Your task to perform on an android device: Open network settings Image 0: 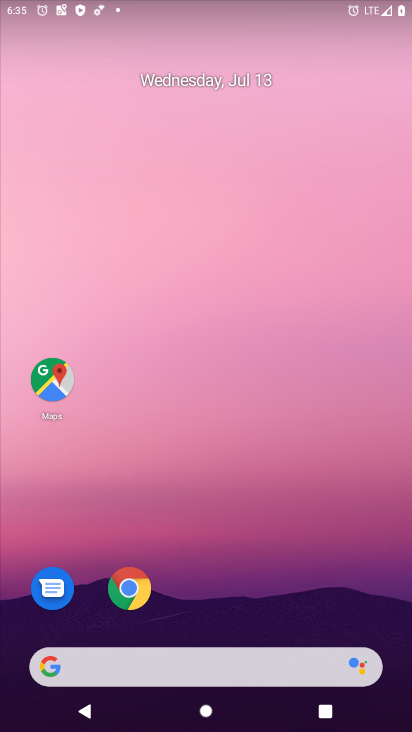
Step 0: drag from (190, 559) to (191, 127)
Your task to perform on an android device: Open network settings Image 1: 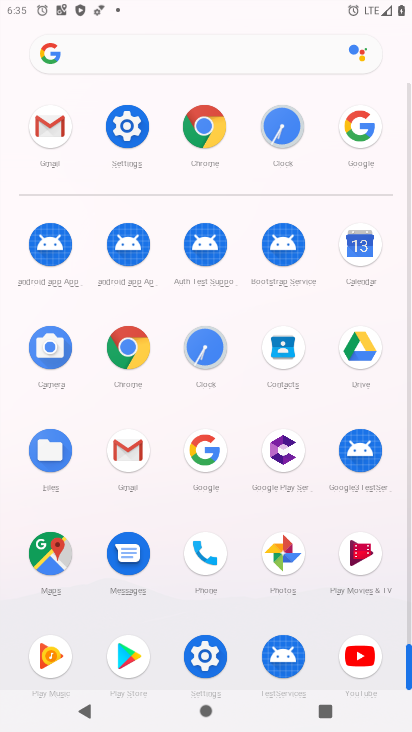
Step 1: click (127, 126)
Your task to perform on an android device: Open network settings Image 2: 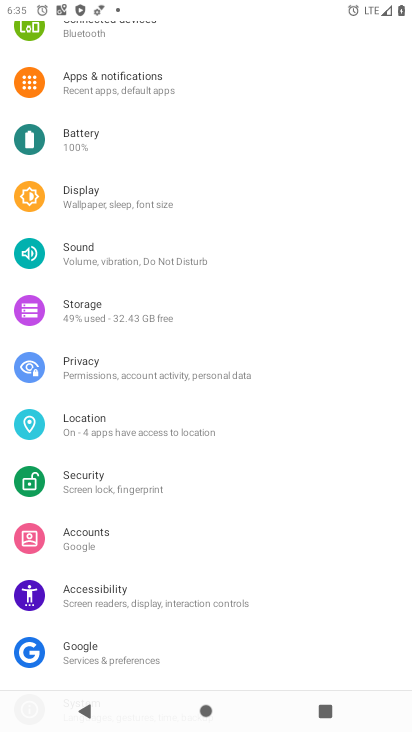
Step 2: drag from (146, 126) to (226, 666)
Your task to perform on an android device: Open network settings Image 3: 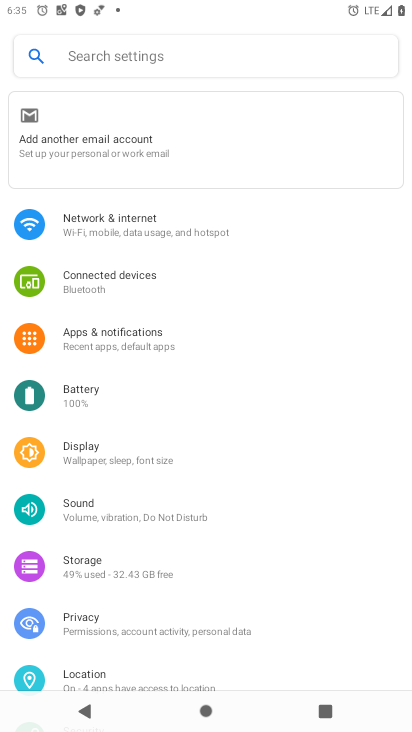
Step 3: click (127, 216)
Your task to perform on an android device: Open network settings Image 4: 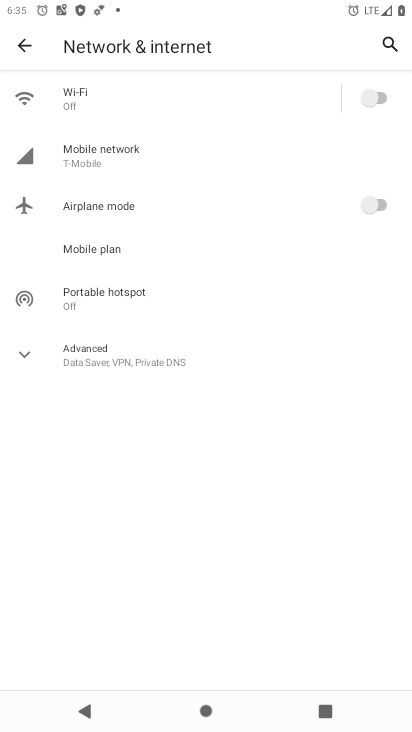
Step 4: click (141, 155)
Your task to perform on an android device: Open network settings Image 5: 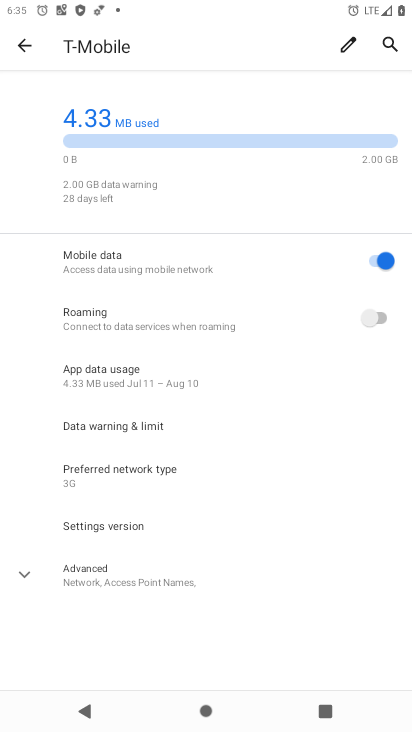
Step 5: task complete